Your task to perform on an android device: read, delete, or share a saved page in the chrome app Image 0: 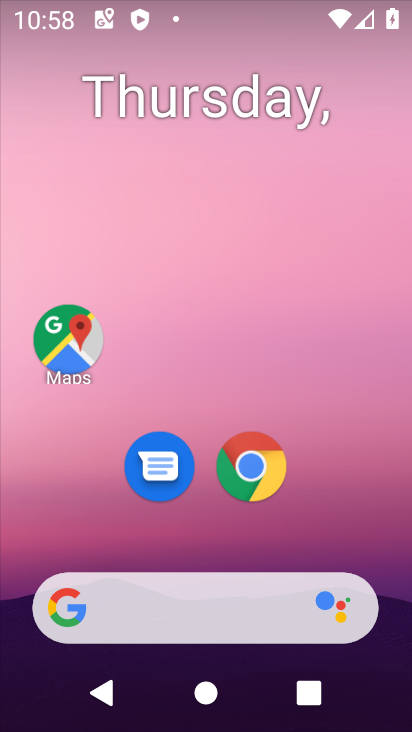
Step 0: drag from (225, 542) to (155, 58)
Your task to perform on an android device: read, delete, or share a saved page in the chrome app Image 1: 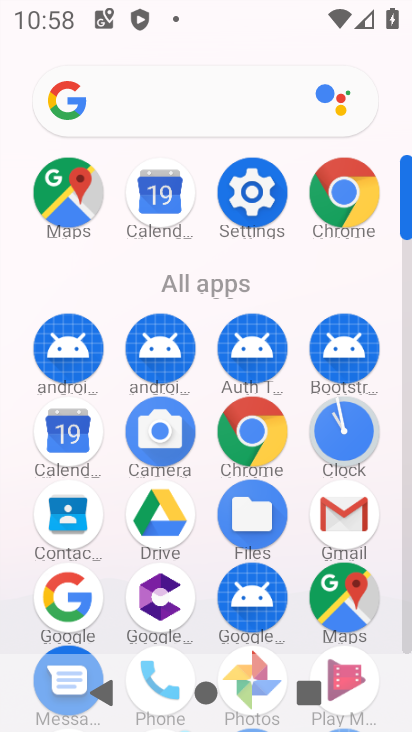
Step 1: click (268, 409)
Your task to perform on an android device: read, delete, or share a saved page in the chrome app Image 2: 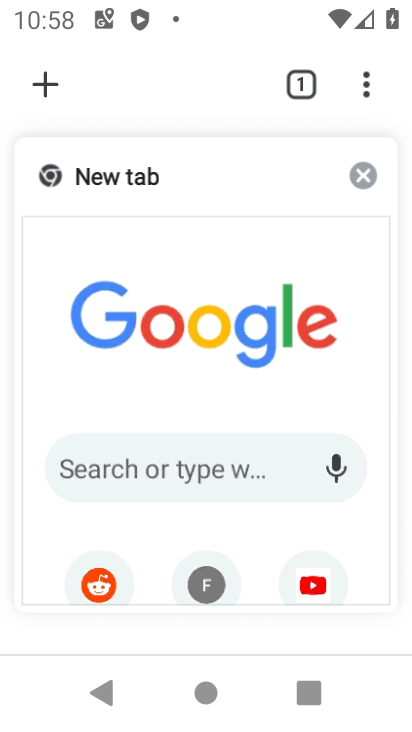
Step 2: click (142, 253)
Your task to perform on an android device: read, delete, or share a saved page in the chrome app Image 3: 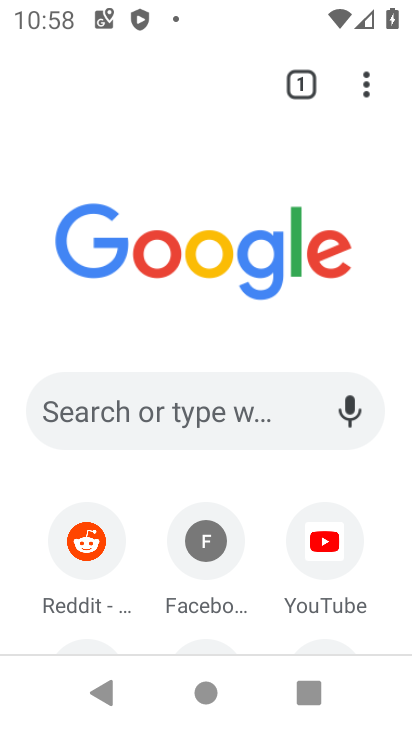
Step 3: click (365, 85)
Your task to perform on an android device: read, delete, or share a saved page in the chrome app Image 4: 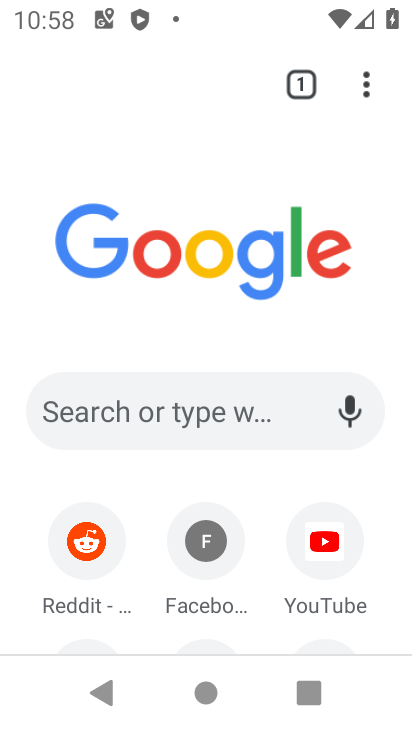
Step 4: task complete